Your task to perform on an android device: Go to internet settings Image 0: 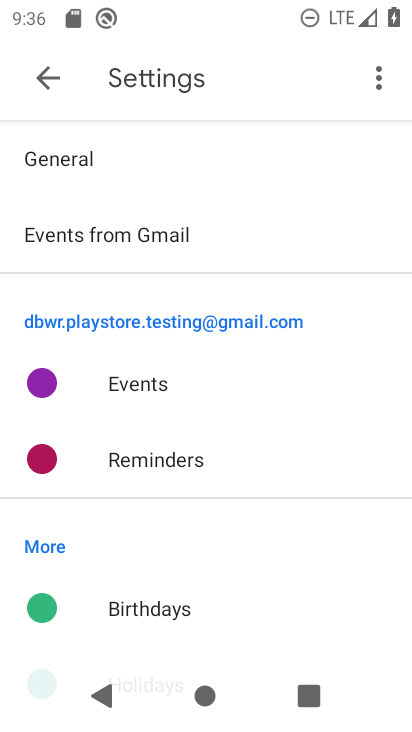
Step 0: press home button
Your task to perform on an android device: Go to internet settings Image 1: 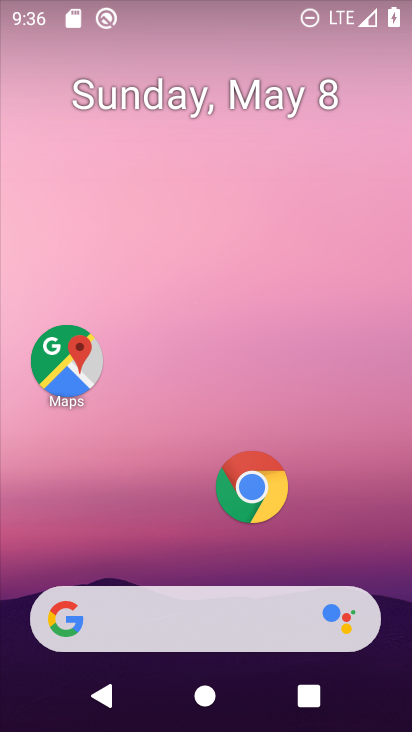
Step 1: drag from (156, 534) to (207, 76)
Your task to perform on an android device: Go to internet settings Image 2: 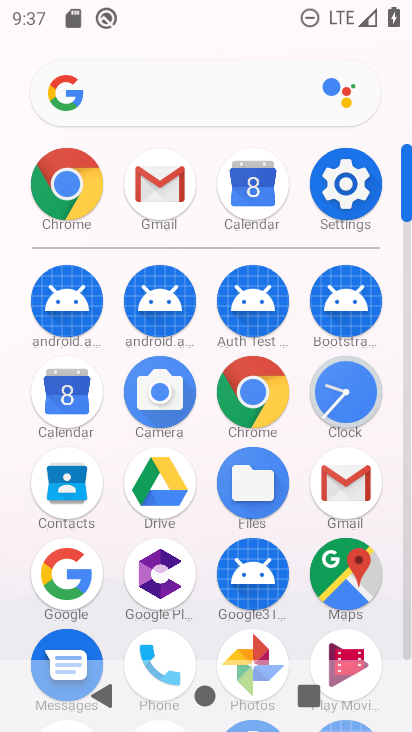
Step 2: click (326, 183)
Your task to perform on an android device: Go to internet settings Image 3: 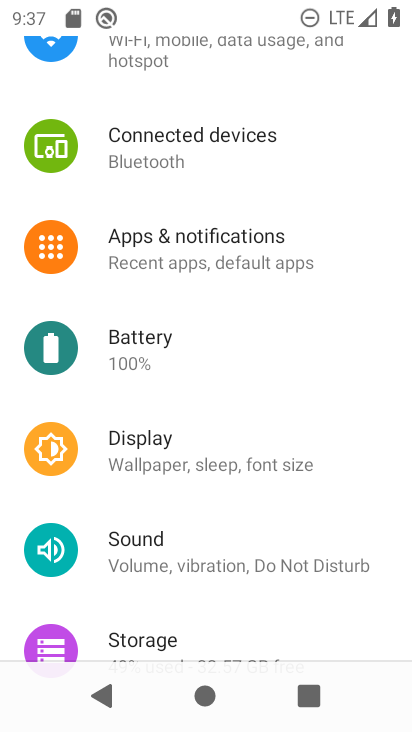
Step 3: drag from (326, 183) to (300, 450)
Your task to perform on an android device: Go to internet settings Image 4: 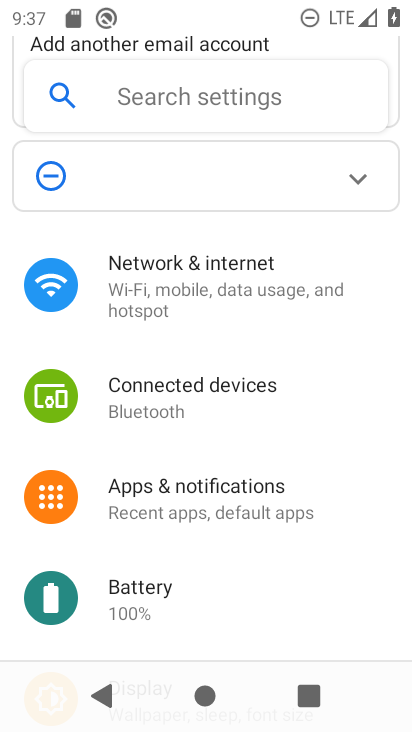
Step 4: click (261, 278)
Your task to perform on an android device: Go to internet settings Image 5: 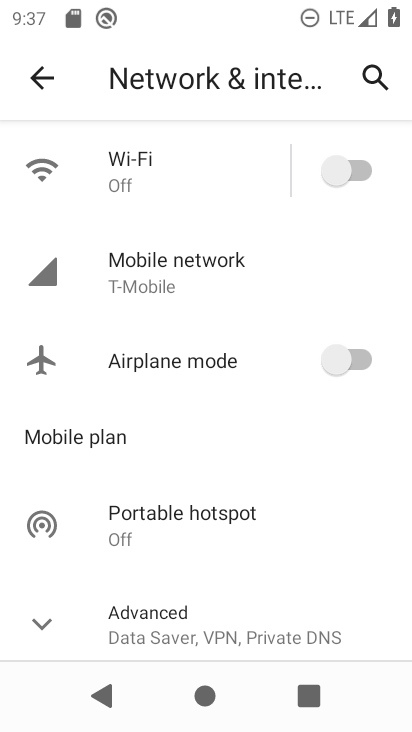
Step 5: task complete